Your task to perform on an android device: toggle data saver in the chrome app Image 0: 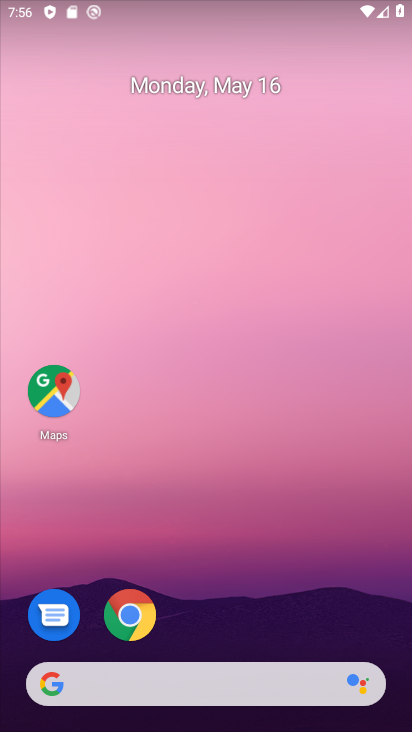
Step 0: click (137, 608)
Your task to perform on an android device: toggle data saver in the chrome app Image 1: 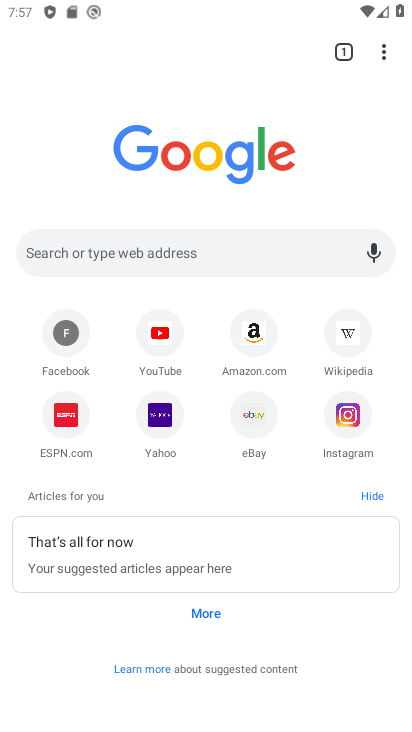
Step 1: click (394, 48)
Your task to perform on an android device: toggle data saver in the chrome app Image 2: 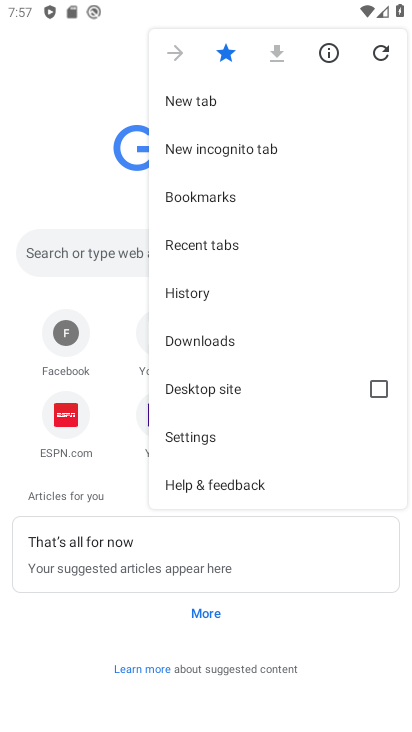
Step 2: click (185, 435)
Your task to perform on an android device: toggle data saver in the chrome app Image 3: 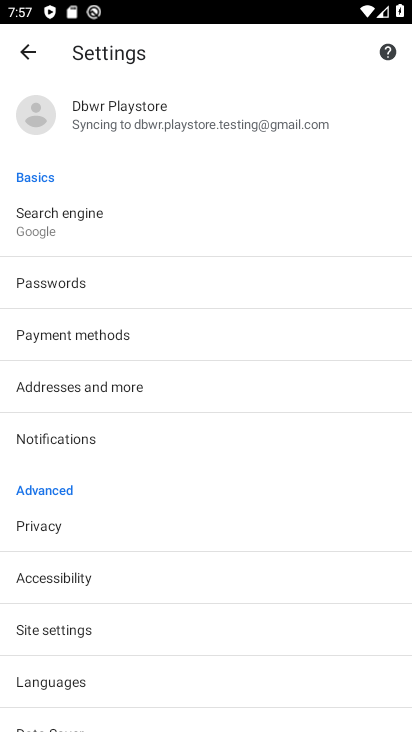
Step 3: drag from (173, 675) to (238, 212)
Your task to perform on an android device: toggle data saver in the chrome app Image 4: 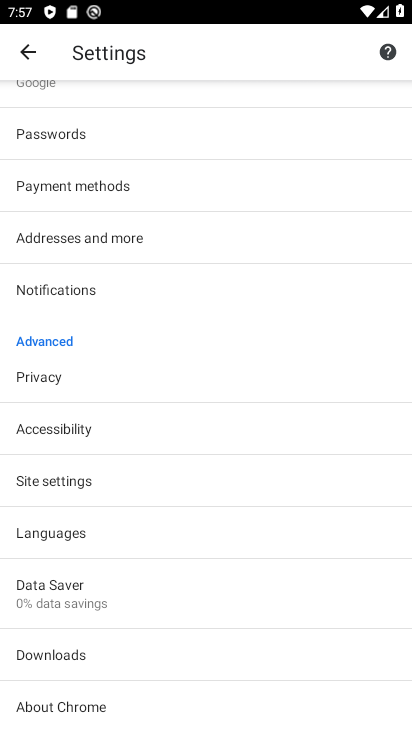
Step 4: click (109, 593)
Your task to perform on an android device: toggle data saver in the chrome app Image 5: 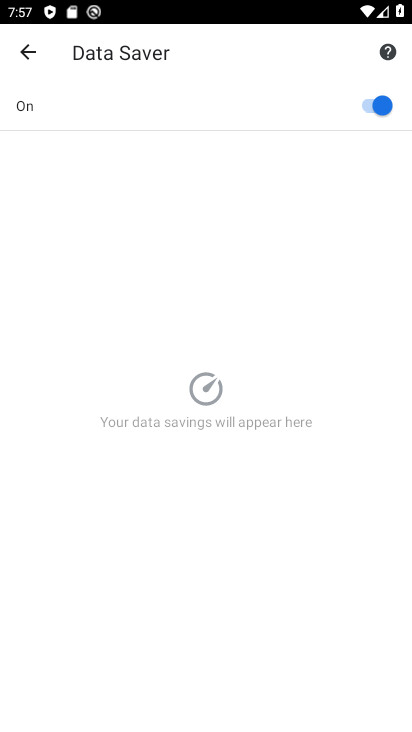
Step 5: click (375, 99)
Your task to perform on an android device: toggle data saver in the chrome app Image 6: 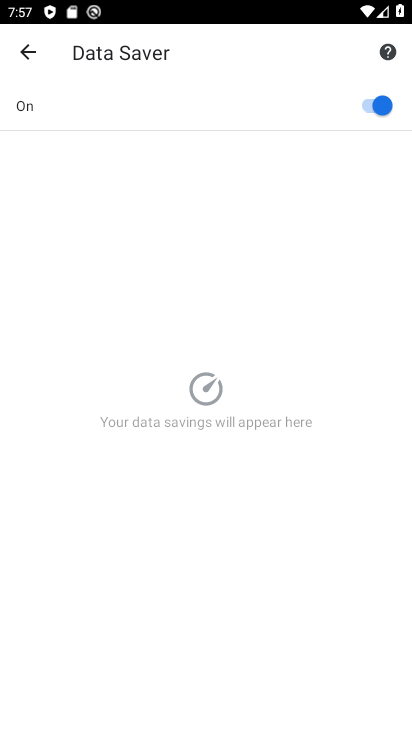
Step 6: click (375, 99)
Your task to perform on an android device: toggle data saver in the chrome app Image 7: 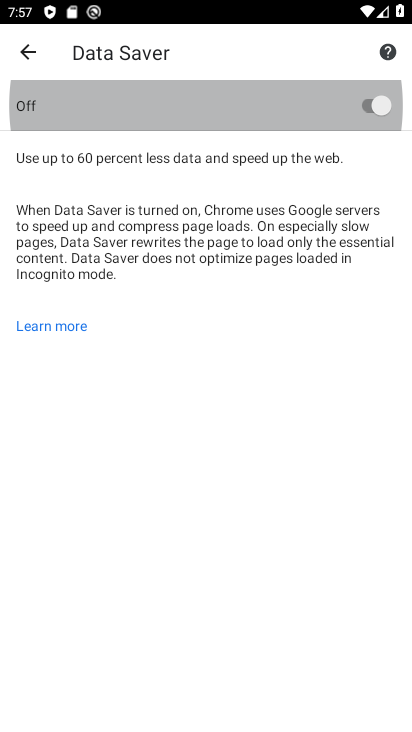
Step 7: click (375, 99)
Your task to perform on an android device: toggle data saver in the chrome app Image 8: 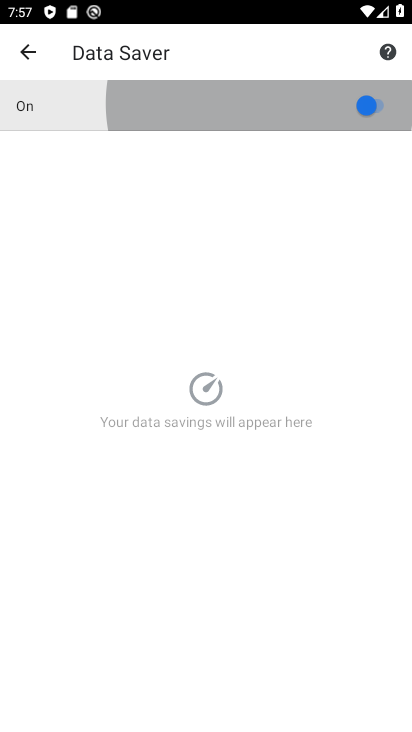
Step 8: click (375, 99)
Your task to perform on an android device: toggle data saver in the chrome app Image 9: 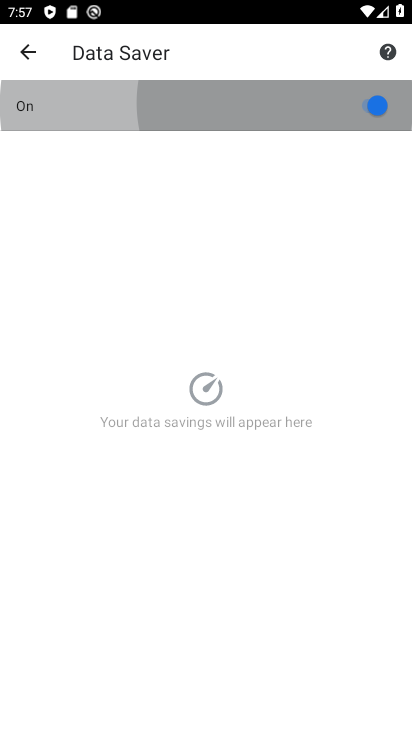
Step 9: click (375, 99)
Your task to perform on an android device: toggle data saver in the chrome app Image 10: 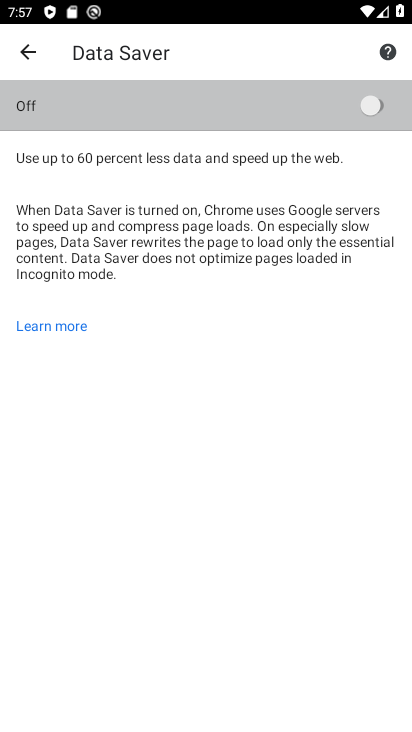
Step 10: click (375, 99)
Your task to perform on an android device: toggle data saver in the chrome app Image 11: 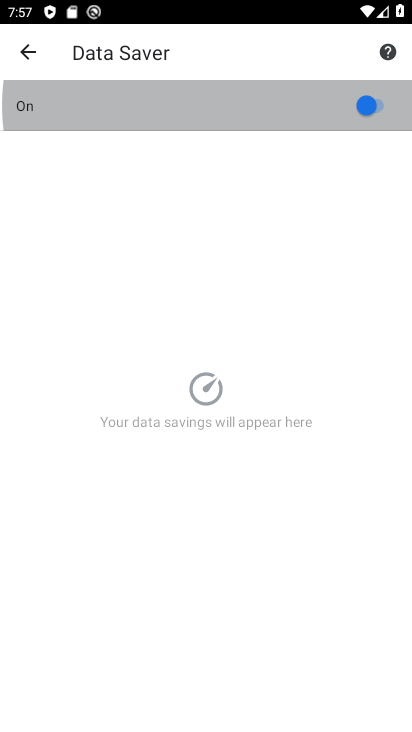
Step 11: click (375, 99)
Your task to perform on an android device: toggle data saver in the chrome app Image 12: 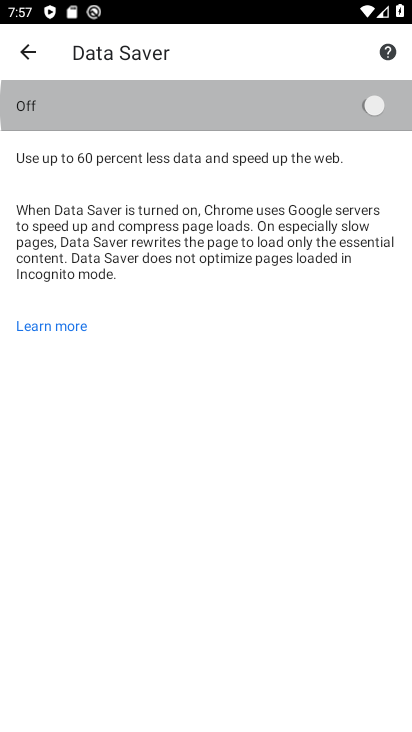
Step 12: click (375, 99)
Your task to perform on an android device: toggle data saver in the chrome app Image 13: 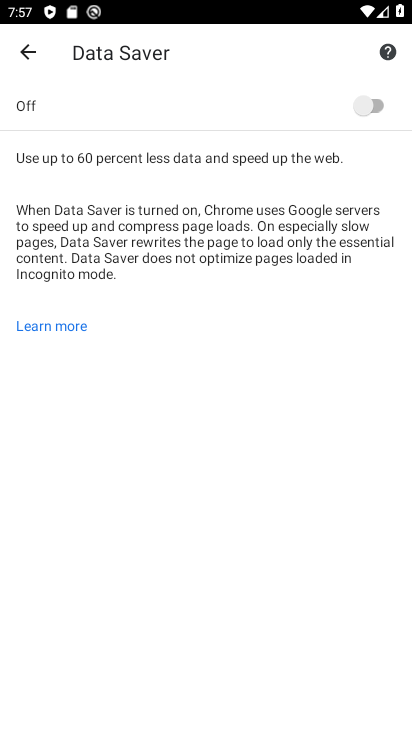
Step 13: task complete